Your task to perform on an android device: Open Google Maps Image 0: 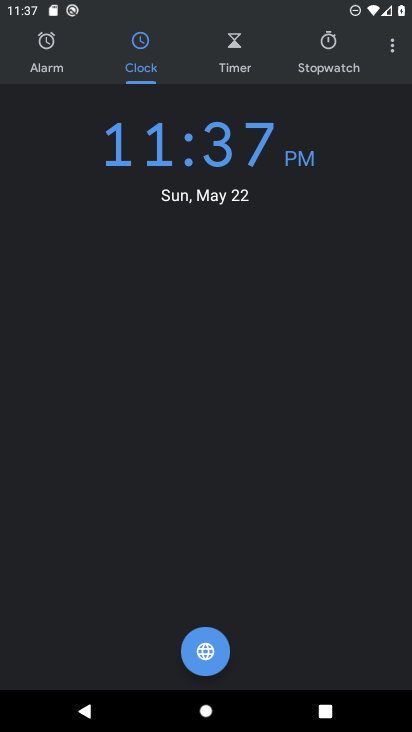
Step 0: press home button
Your task to perform on an android device: Open Google Maps Image 1: 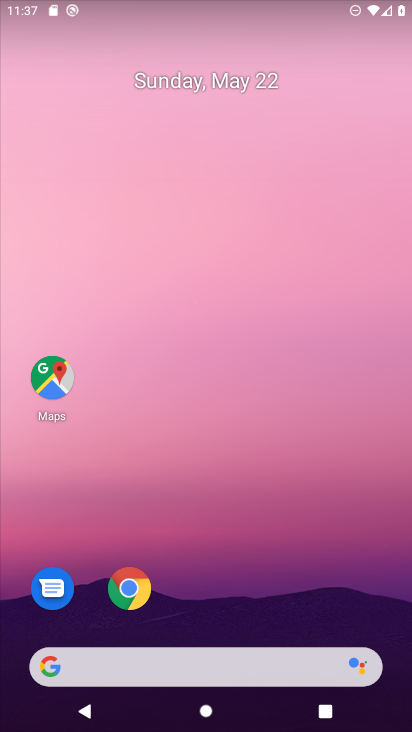
Step 1: click (55, 369)
Your task to perform on an android device: Open Google Maps Image 2: 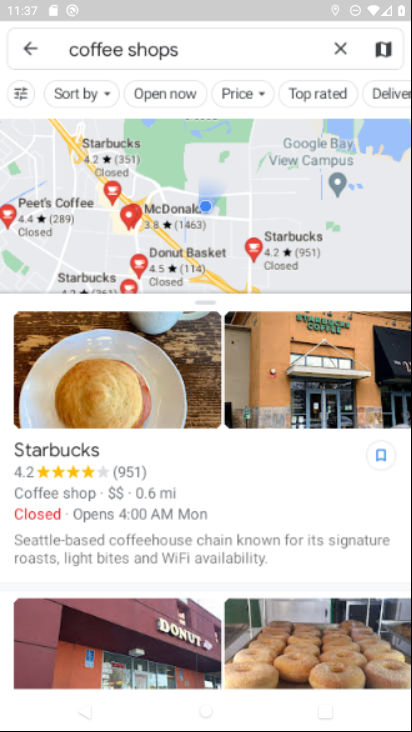
Step 2: click (343, 47)
Your task to perform on an android device: Open Google Maps Image 3: 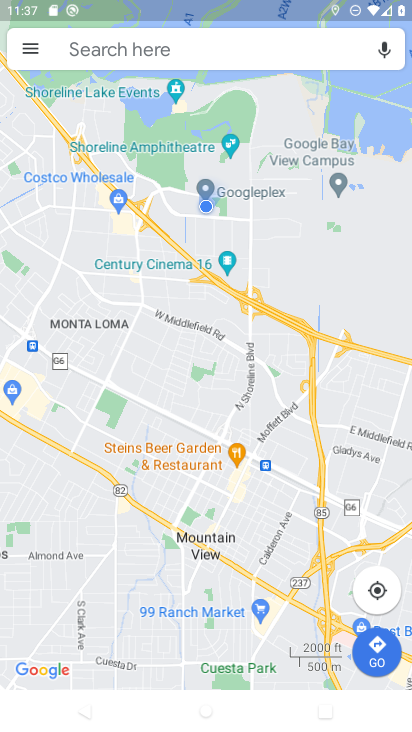
Step 3: task complete